Your task to perform on an android device: check battery use Image 0: 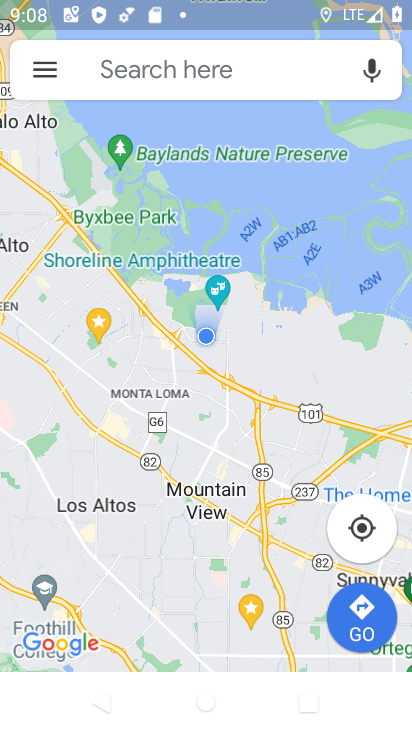
Step 0: press home button
Your task to perform on an android device: check battery use Image 1: 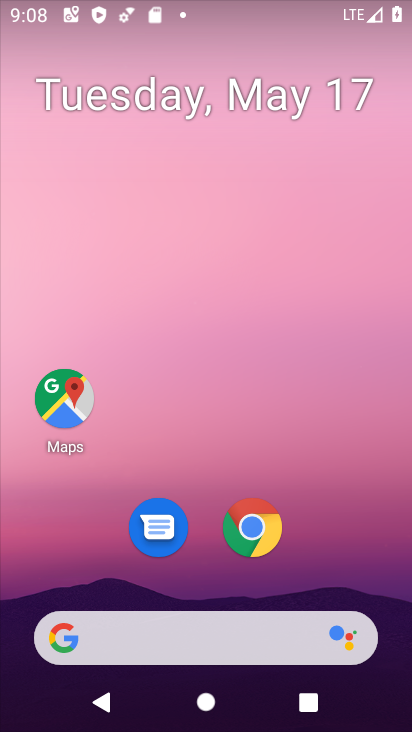
Step 1: drag from (171, 635) to (329, 75)
Your task to perform on an android device: check battery use Image 2: 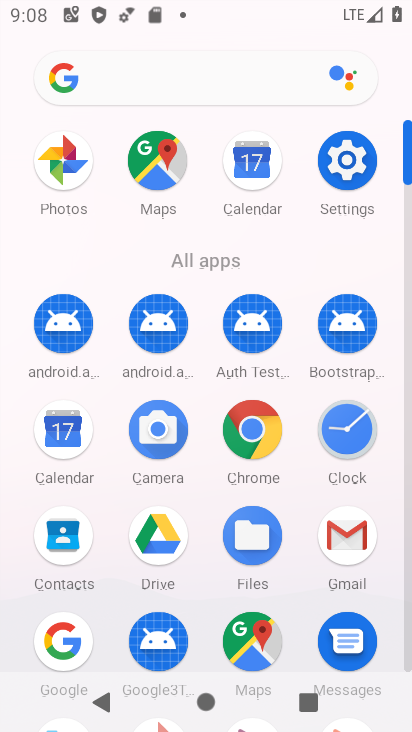
Step 2: click (357, 160)
Your task to perform on an android device: check battery use Image 3: 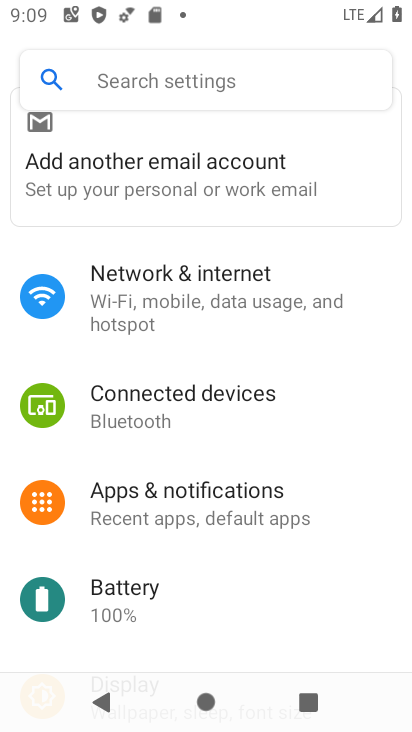
Step 3: click (128, 605)
Your task to perform on an android device: check battery use Image 4: 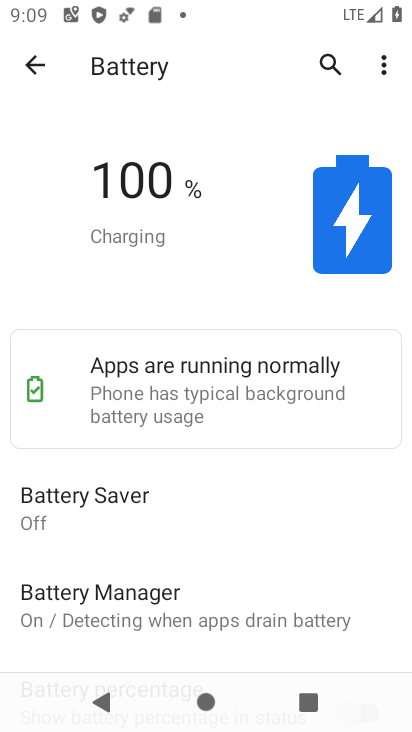
Step 4: click (386, 69)
Your task to perform on an android device: check battery use Image 5: 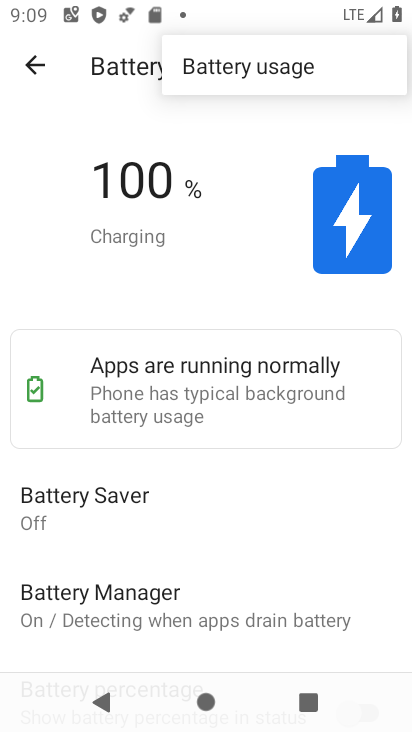
Step 5: click (256, 72)
Your task to perform on an android device: check battery use Image 6: 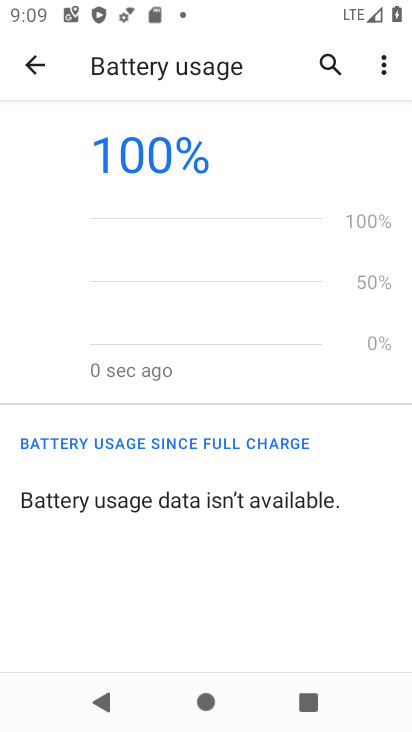
Step 6: task complete